Your task to perform on an android device: toggle show notifications on the lock screen Image 0: 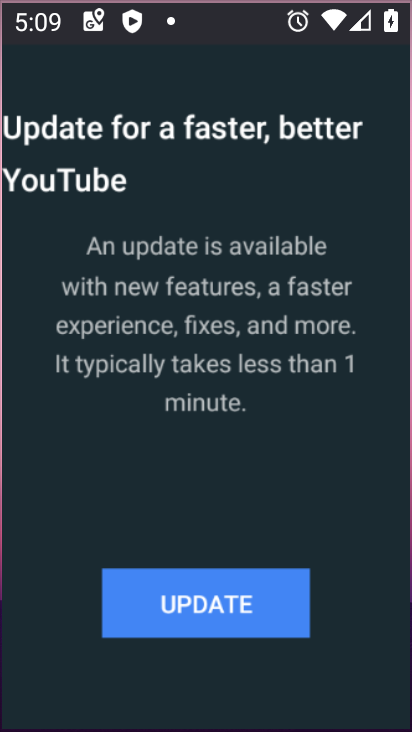
Step 0: press home button
Your task to perform on an android device: toggle show notifications on the lock screen Image 1: 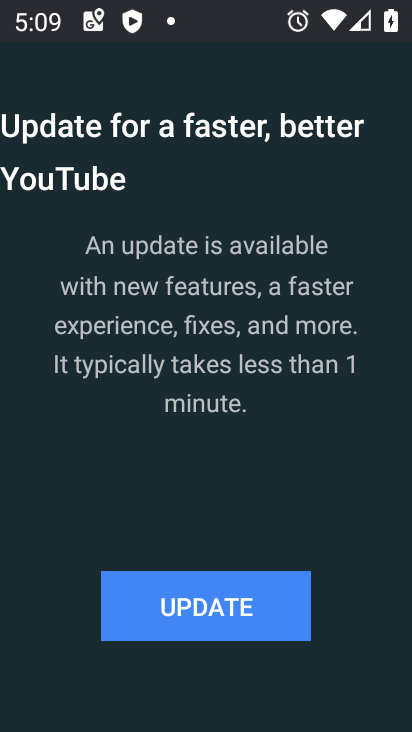
Step 1: press home button
Your task to perform on an android device: toggle show notifications on the lock screen Image 2: 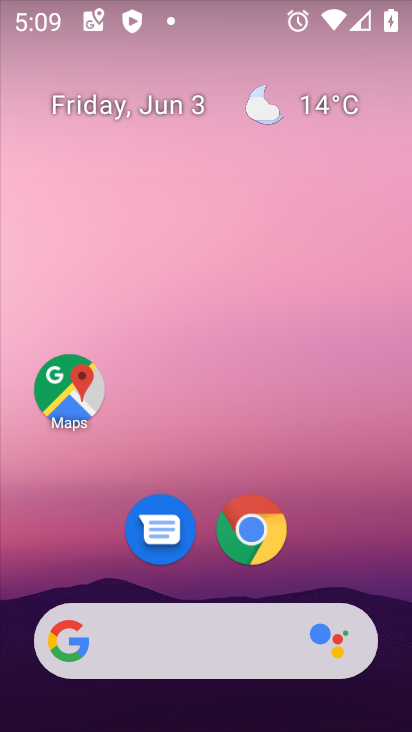
Step 2: drag from (203, 579) to (239, 82)
Your task to perform on an android device: toggle show notifications on the lock screen Image 3: 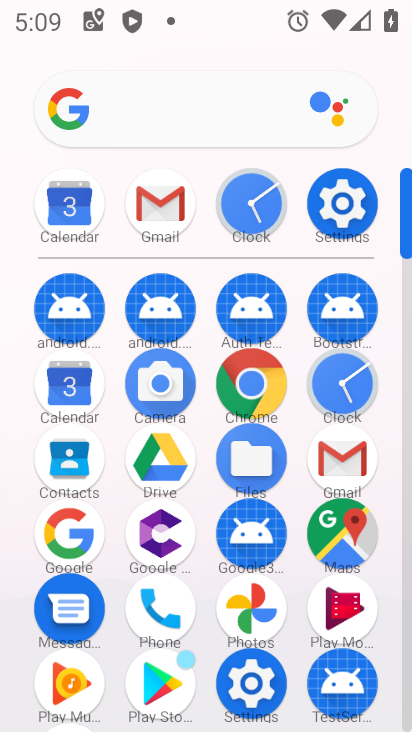
Step 3: click (339, 197)
Your task to perform on an android device: toggle show notifications on the lock screen Image 4: 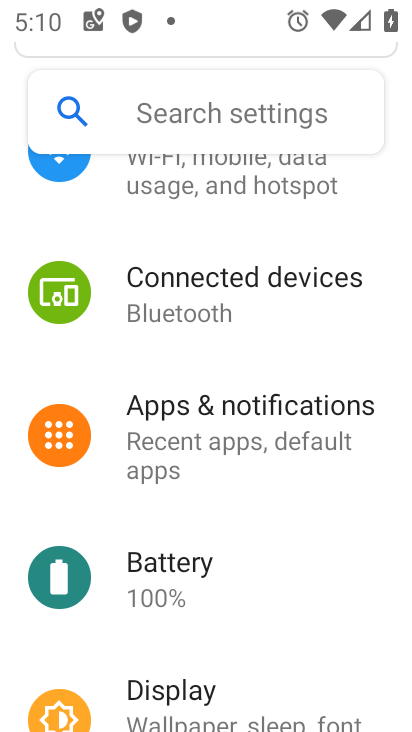
Step 4: click (258, 420)
Your task to perform on an android device: toggle show notifications on the lock screen Image 5: 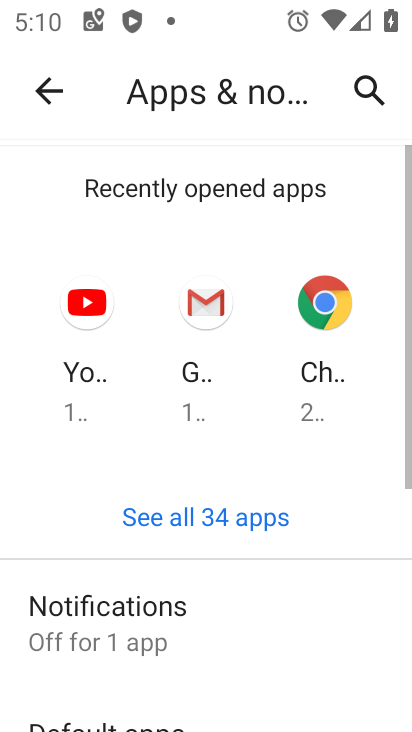
Step 5: click (209, 618)
Your task to perform on an android device: toggle show notifications on the lock screen Image 6: 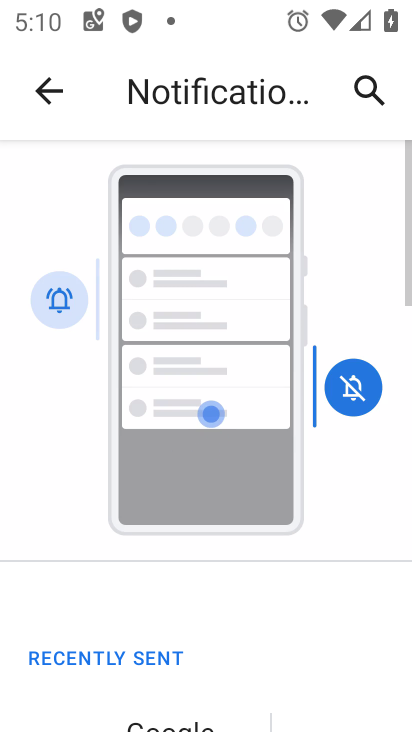
Step 6: drag from (226, 662) to (228, 346)
Your task to perform on an android device: toggle show notifications on the lock screen Image 7: 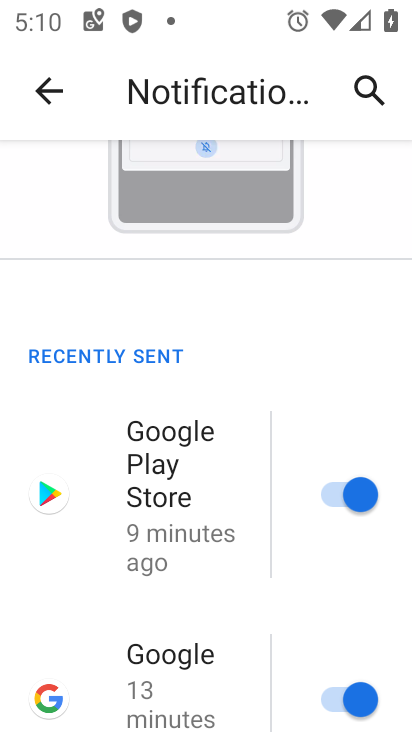
Step 7: drag from (243, 629) to (249, 233)
Your task to perform on an android device: toggle show notifications on the lock screen Image 8: 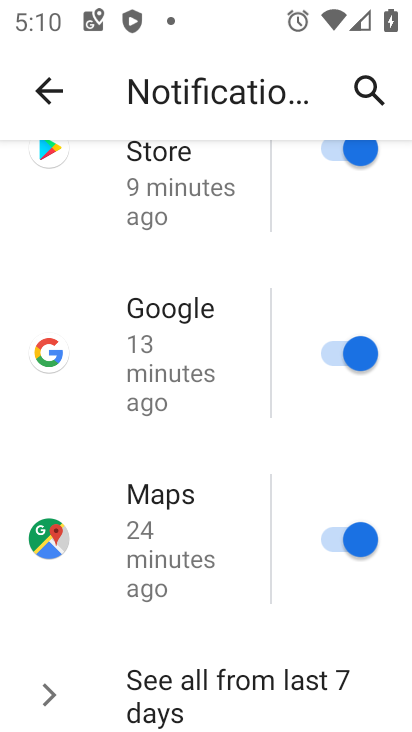
Step 8: drag from (221, 627) to (268, 183)
Your task to perform on an android device: toggle show notifications on the lock screen Image 9: 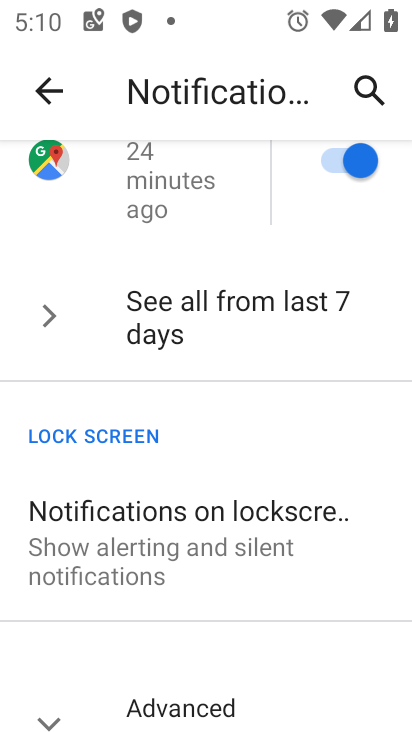
Step 9: click (184, 526)
Your task to perform on an android device: toggle show notifications on the lock screen Image 10: 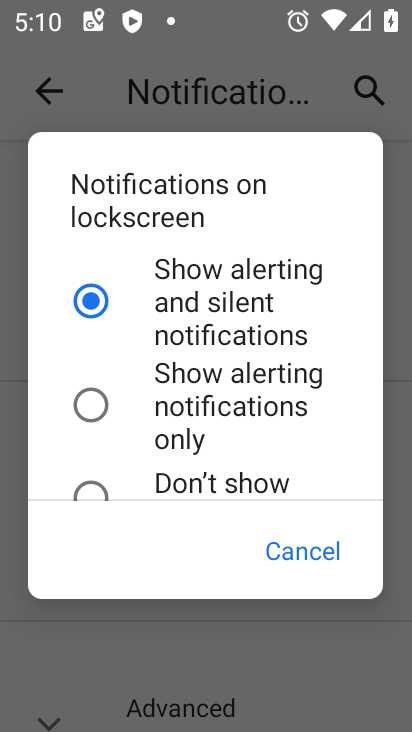
Step 10: click (88, 401)
Your task to perform on an android device: toggle show notifications on the lock screen Image 11: 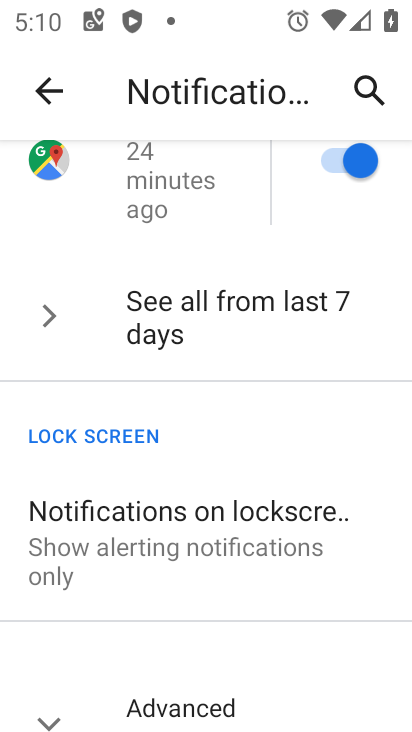
Step 11: task complete